Your task to perform on an android device: check storage Image 0: 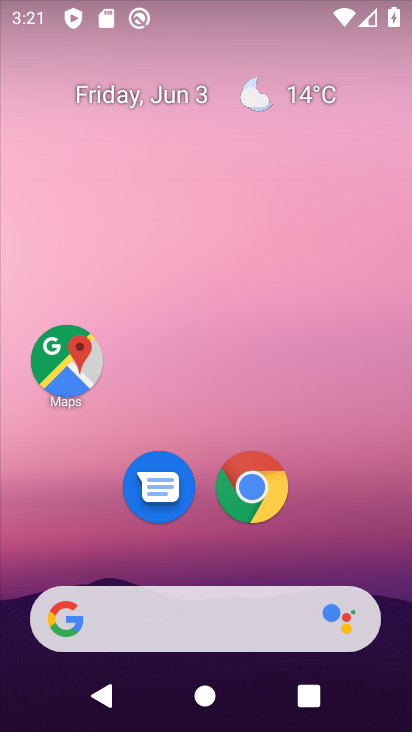
Step 0: drag from (120, 587) to (218, 53)
Your task to perform on an android device: check storage Image 1: 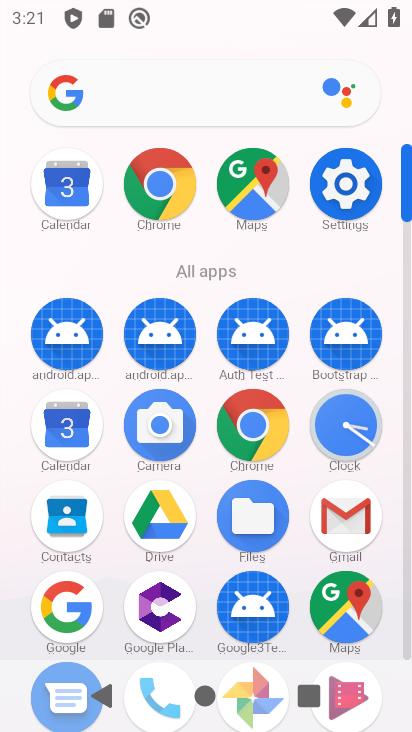
Step 1: click (336, 179)
Your task to perform on an android device: check storage Image 2: 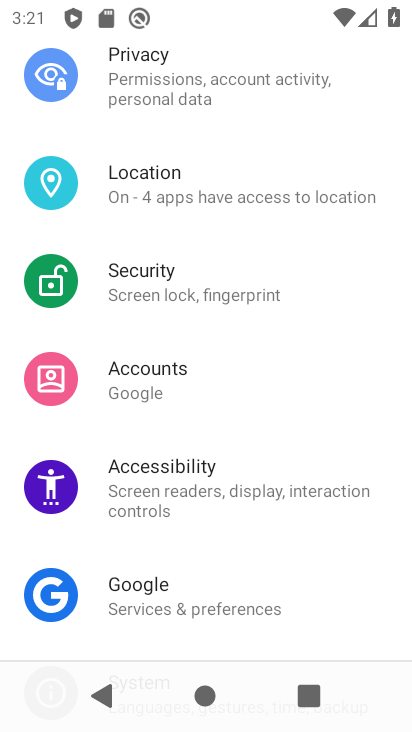
Step 2: drag from (201, 542) to (321, 21)
Your task to perform on an android device: check storage Image 3: 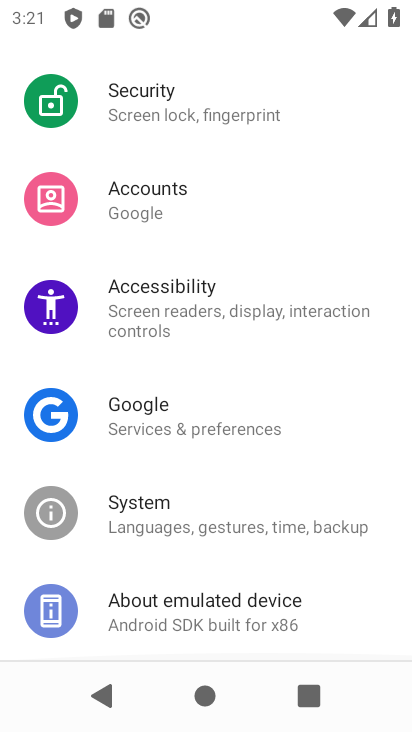
Step 3: drag from (205, 142) to (133, 660)
Your task to perform on an android device: check storage Image 4: 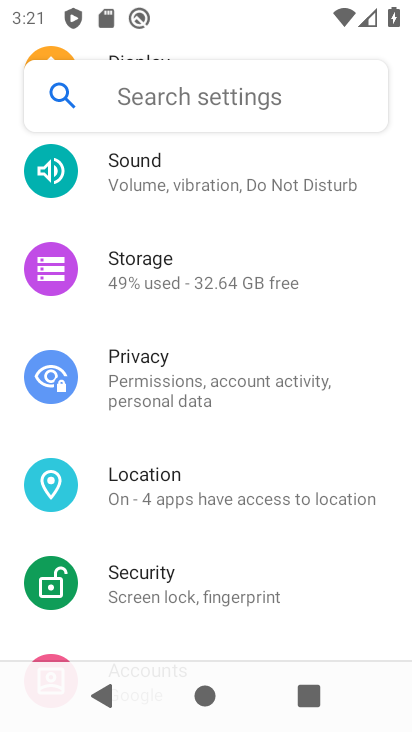
Step 4: click (154, 268)
Your task to perform on an android device: check storage Image 5: 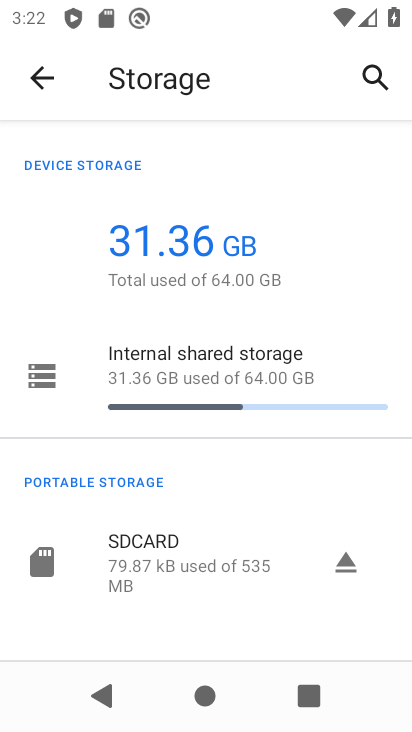
Step 5: task complete